Your task to perform on an android device: add a contact Image 0: 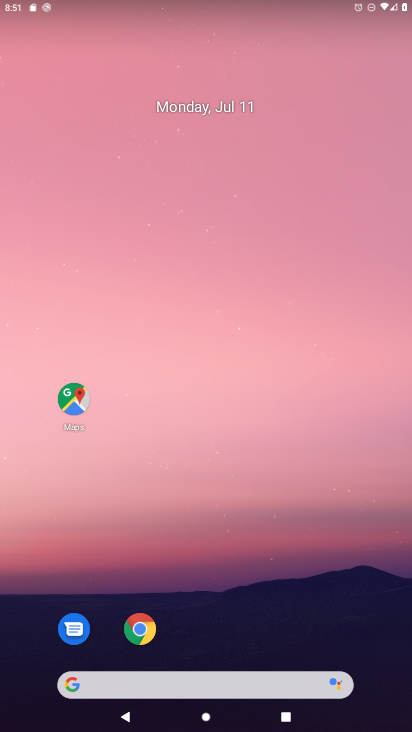
Step 0: drag from (225, 628) to (233, 29)
Your task to perform on an android device: add a contact Image 1: 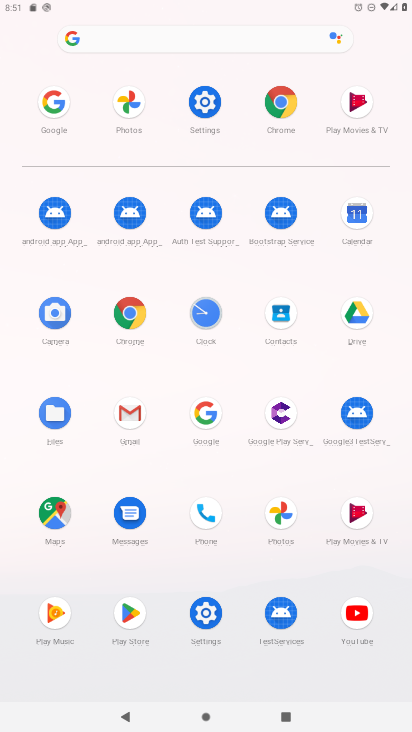
Step 1: click (286, 313)
Your task to perform on an android device: add a contact Image 2: 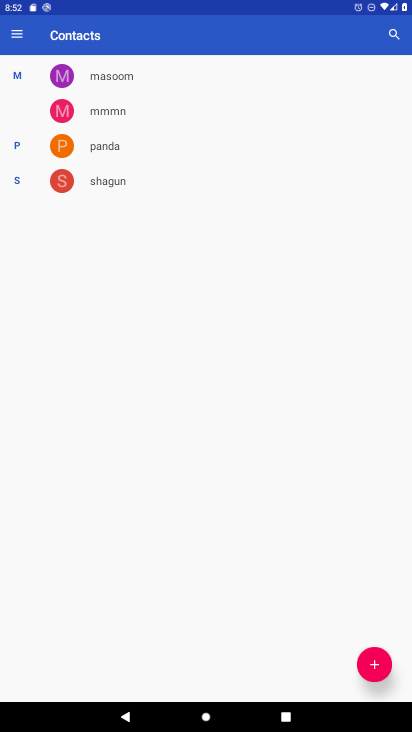
Step 2: click (358, 663)
Your task to perform on an android device: add a contact Image 3: 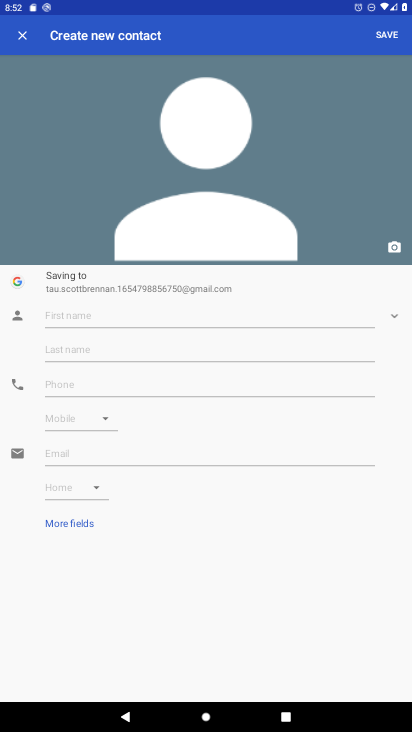
Step 3: click (141, 315)
Your task to perform on an android device: add a contact Image 4: 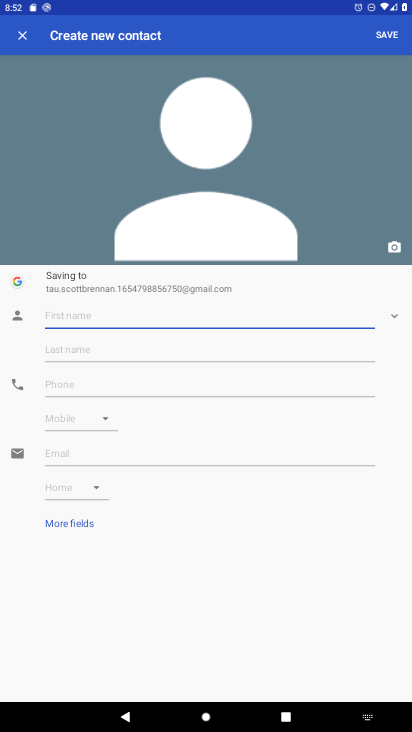
Step 4: type "kuwgxhj"
Your task to perform on an android device: add a contact Image 5: 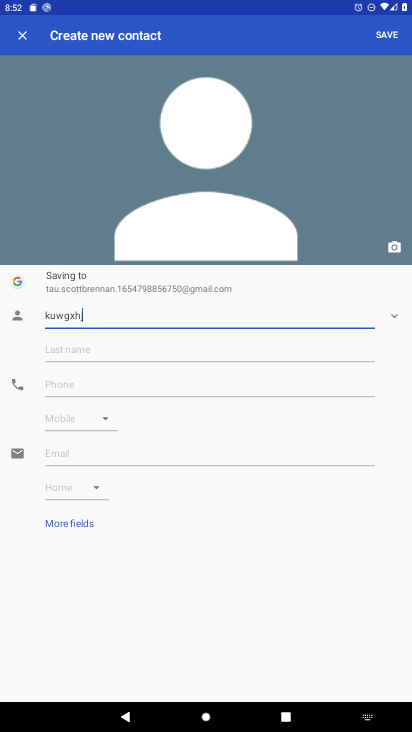
Step 5: click (171, 384)
Your task to perform on an android device: add a contact Image 6: 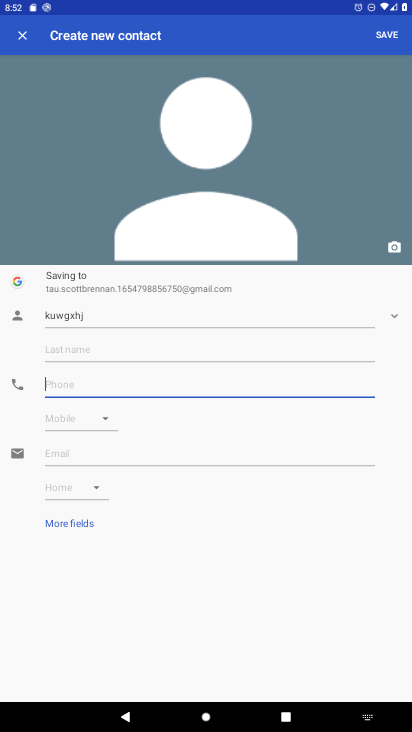
Step 6: type "896785764646"
Your task to perform on an android device: add a contact Image 7: 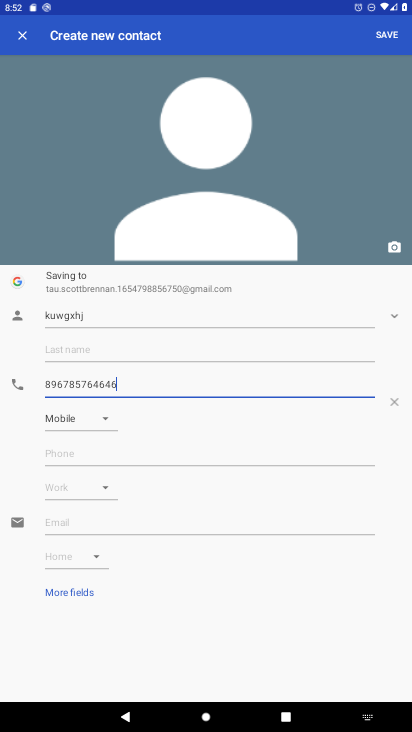
Step 7: click (387, 33)
Your task to perform on an android device: add a contact Image 8: 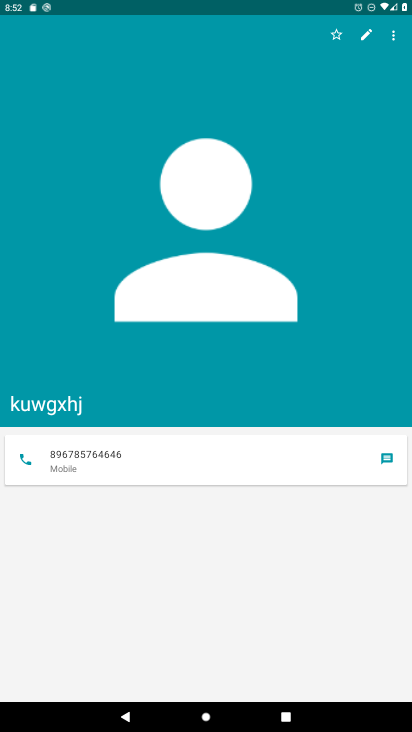
Step 8: task complete